Your task to perform on an android device: turn on showing notifications on the lock screen Image 0: 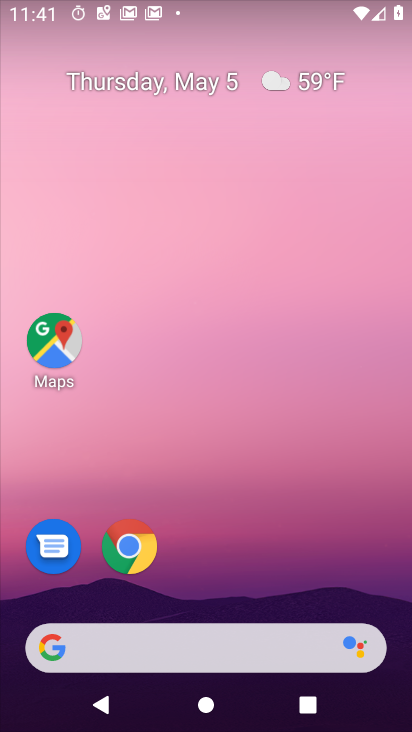
Step 0: drag from (286, 483) to (228, 180)
Your task to perform on an android device: turn on showing notifications on the lock screen Image 1: 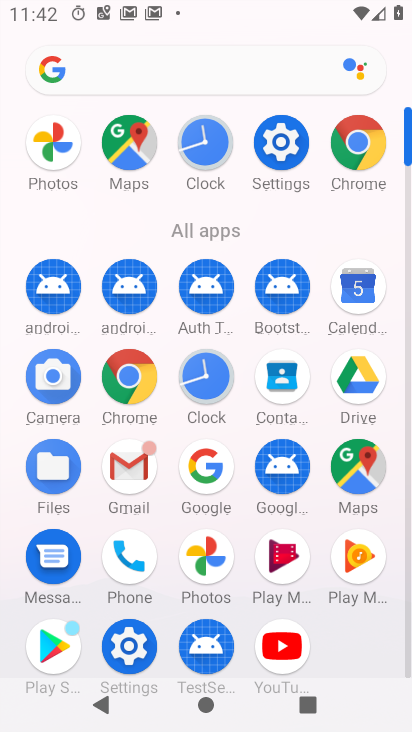
Step 1: click (288, 126)
Your task to perform on an android device: turn on showing notifications on the lock screen Image 2: 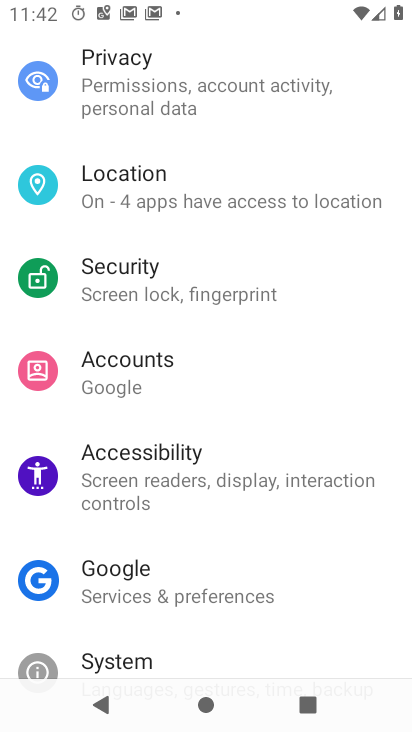
Step 2: drag from (238, 246) to (236, 442)
Your task to perform on an android device: turn on showing notifications on the lock screen Image 3: 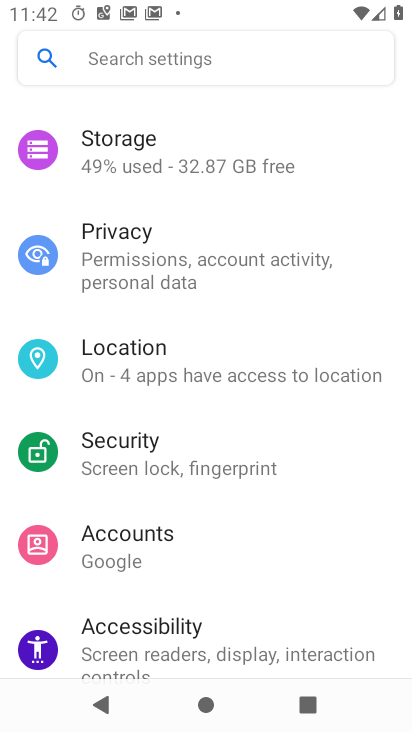
Step 3: drag from (275, 199) to (283, 367)
Your task to perform on an android device: turn on showing notifications on the lock screen Image 4: 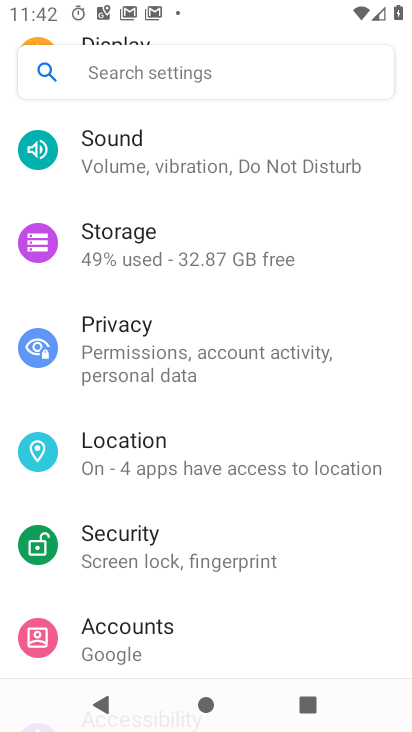
Step 4: drag from (244, 229) to (282, 604)
Your task to perform on an android device: turn on showing notifications on the lock screen Image 5: 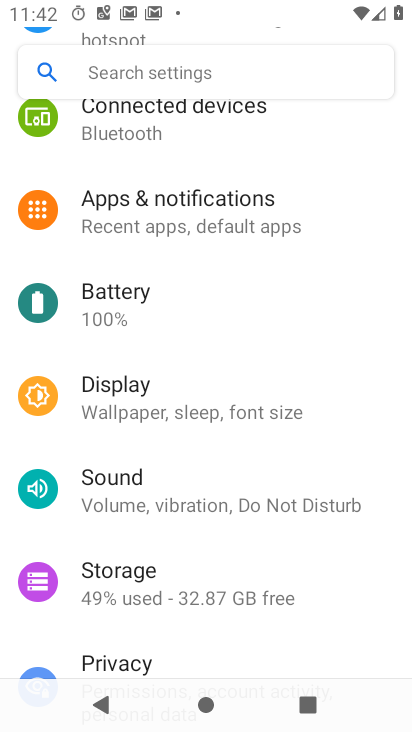
Step 5: click (172, 226)
Your task to perform on an android device: turn on showing notifications on the lock screen Image 6: 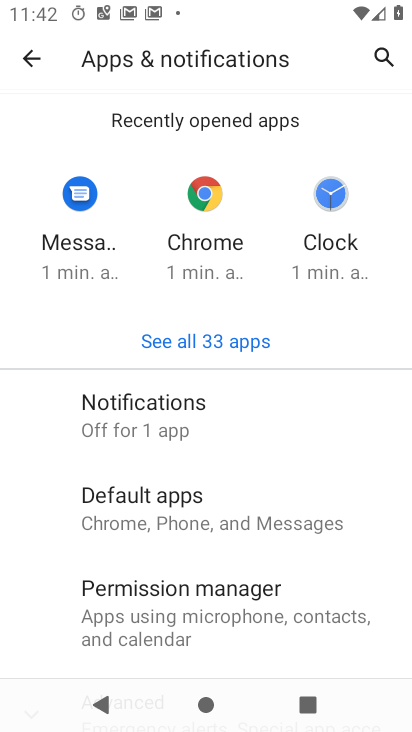
Step 6: drag from (307, 526) to (303, 197)
Your task to perform on an android device: turn on showing notifications on the lock screen Image 7: 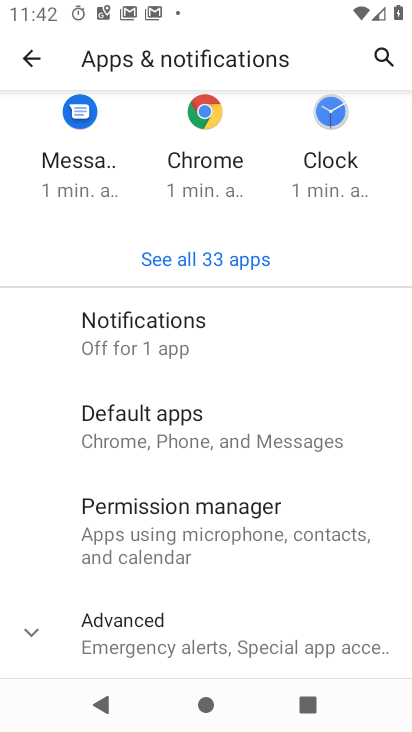
Step 7: click (205, 350)
Your task to perform on an android device: turn on showing notifications on the lock screen Image 8: 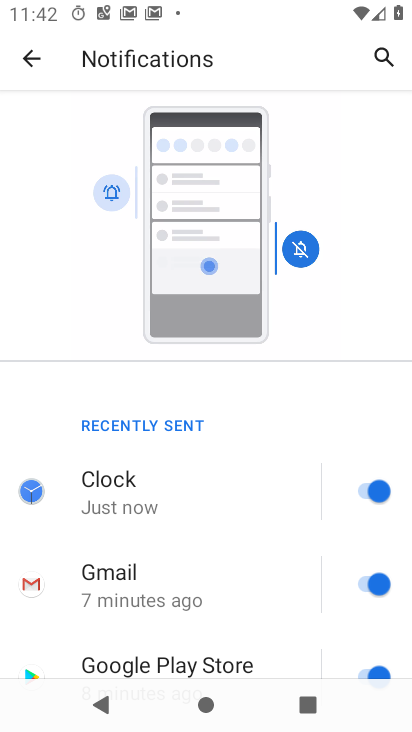
Step 8: drag from (252, 610) to (253, 205)
Your task to perform on an android device: turn on showing notifications on the lock screen Image 9: 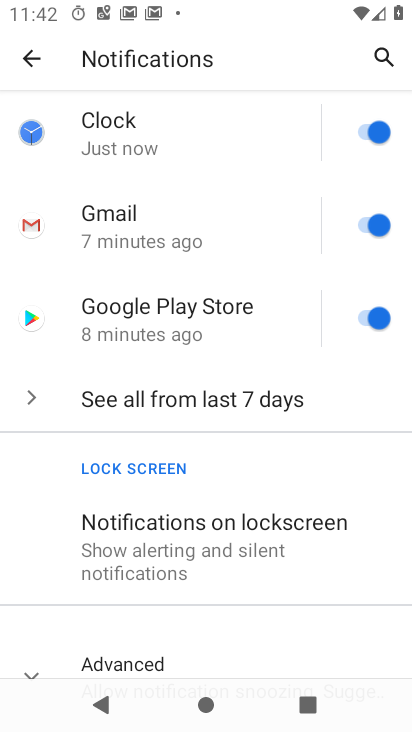
Step 9: drag from (224, 621) to (227, 423)
Your task to perform on an android device: turn on showing notifications on the lock screen Image 10: 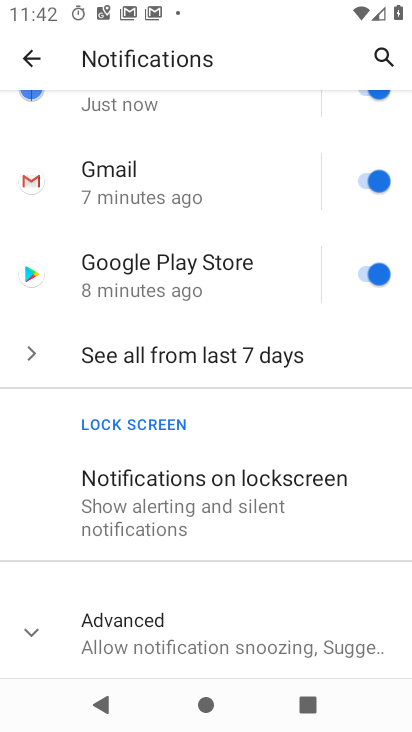
Step 10: click (232, 507)
Your task to perform on an android device: turn on showing notifications on the lock screen Image 11: 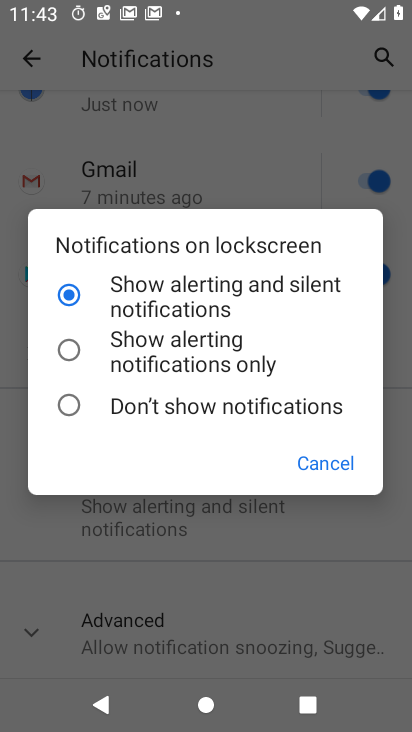
Step 11: click (258, 278)
Your task to perform on an android device: turn on showing notifications on the lock screen Image 12: 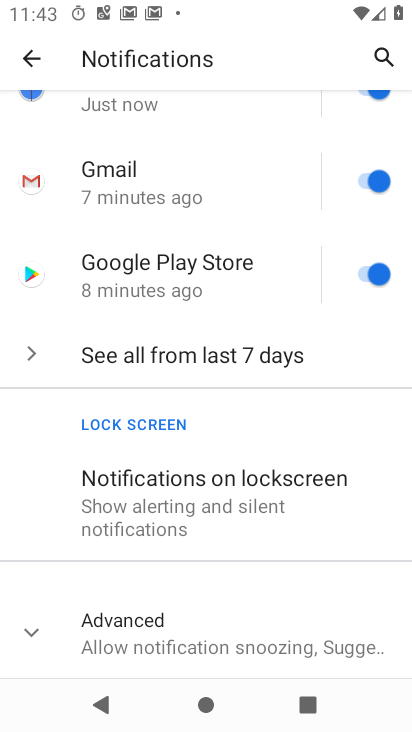
Step 12: click (121, 308)
Your task to perform on an android device: turn on showing notifications on the lock screen Image 13: 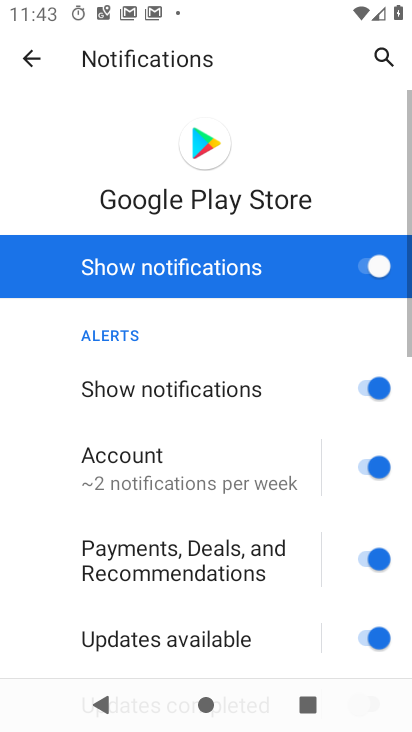
Step 13: task complete